Your task to perform on an android device: toggle wifi Image 0: 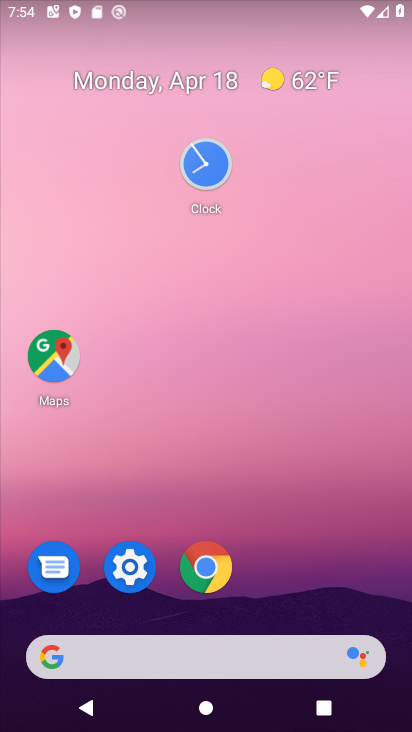
Step 0: drag from (252, 534) to (231, 87)
Your task to perform on an android device: toggle wifi Image 1: 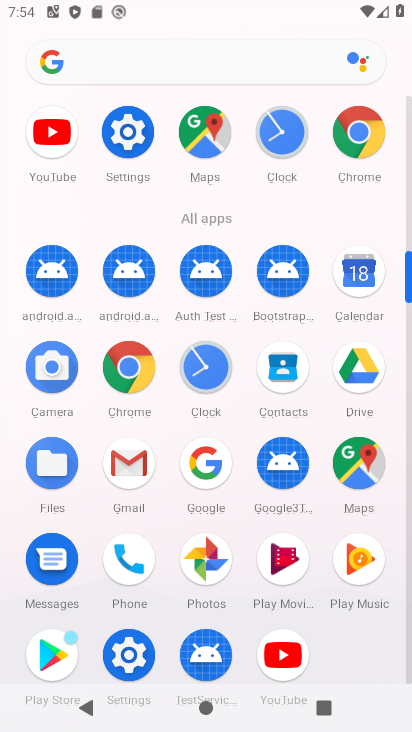
Step 1: click (131, 136)
Your task to perform on an android device: toggle wifi Image 2: 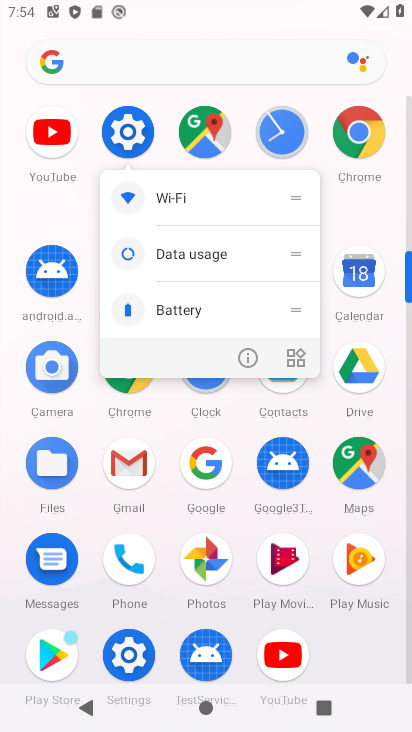
Step 2: click (127, 143)
Your task to perform on an android device: toggle wifi Image 3: 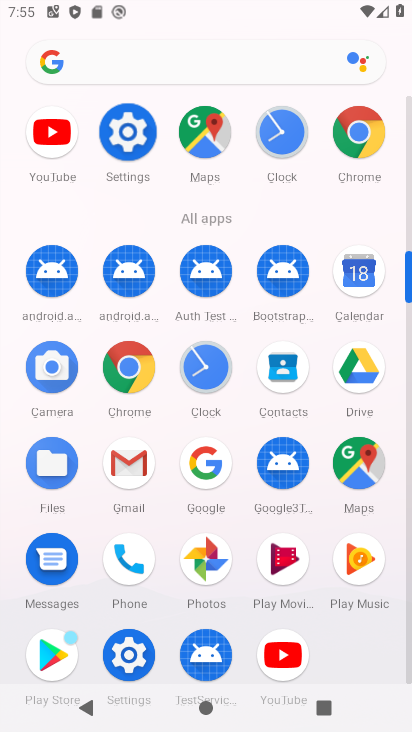
Step 3: click (127, 143)
Your task to perform on an android device: toggle wifi Image 4: 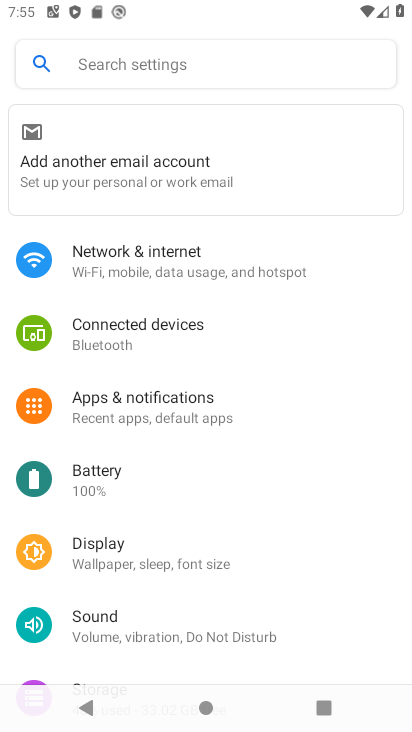
Step 4: click (145, 259)
Your task to perform on an android device: toggle wifi Image 5: 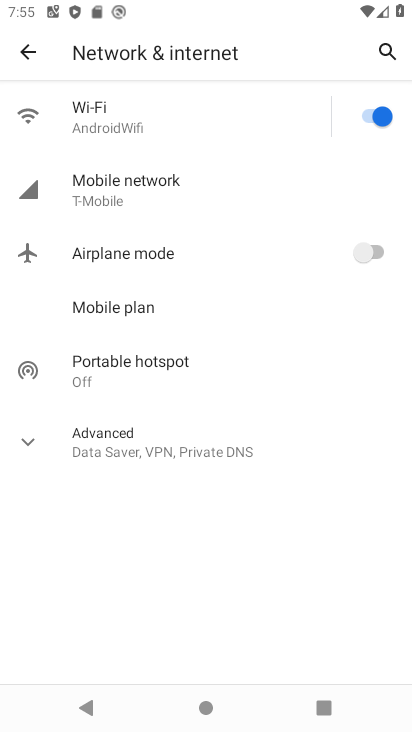
Step 5: click (386, 116)
Your task to perform on an android device: toggle wifi Image 6: 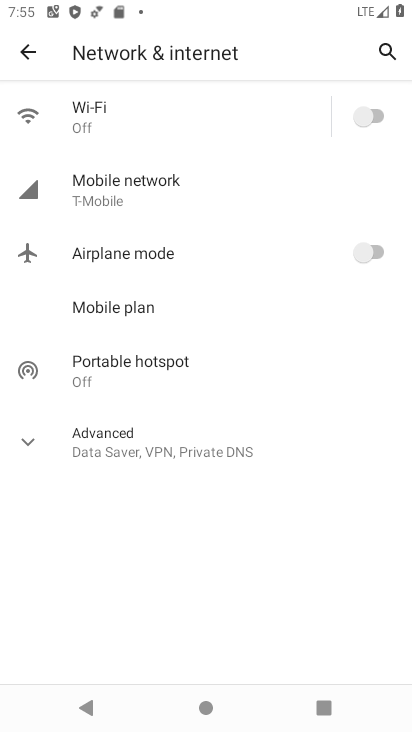
Step 6: task complete